Your task to perform on an android device: empty trash in google photos Image 0: 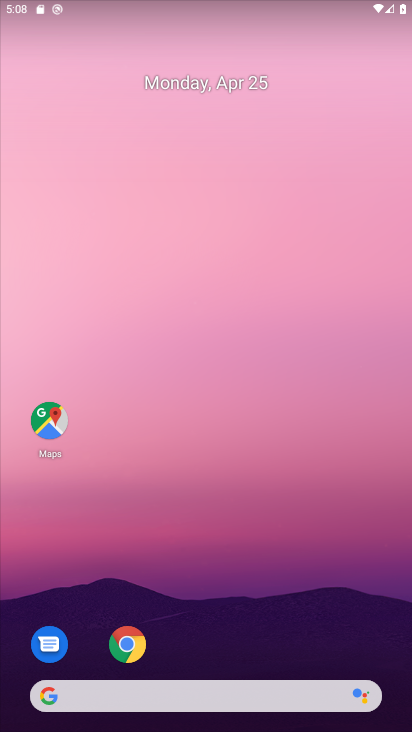
Step 0: drag from (244, 603) to (177, 50)
Your task to perform on an android device: empty trash in google photos Image 1: 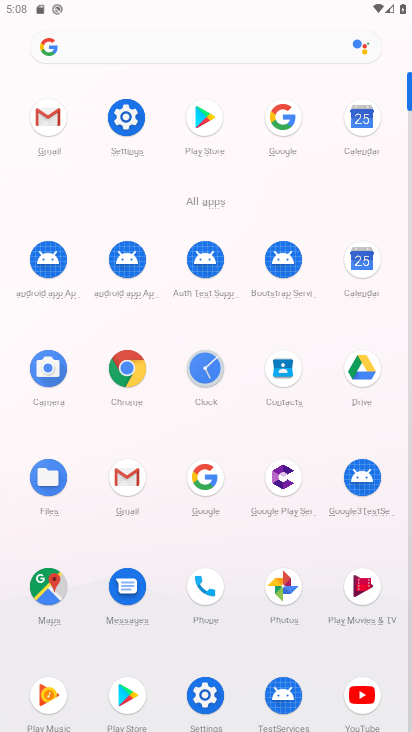
Step 1: click (282, 584)
Your task to perform on an android device: empty trash in google photos Image 2: 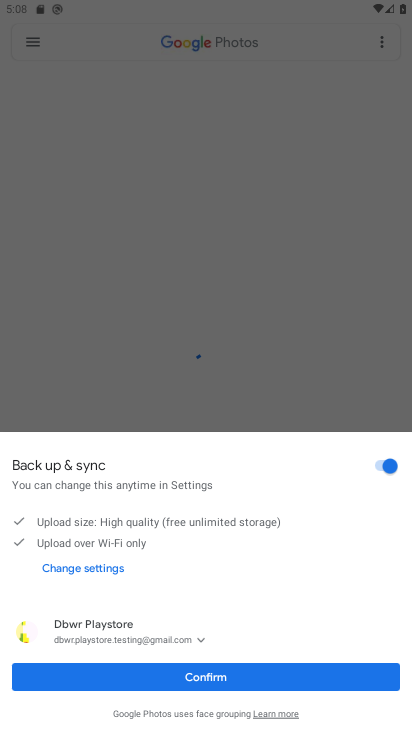
Step 2: click (236, 672)
Your task to perform on an android device: empty trash in google photos Image 3: 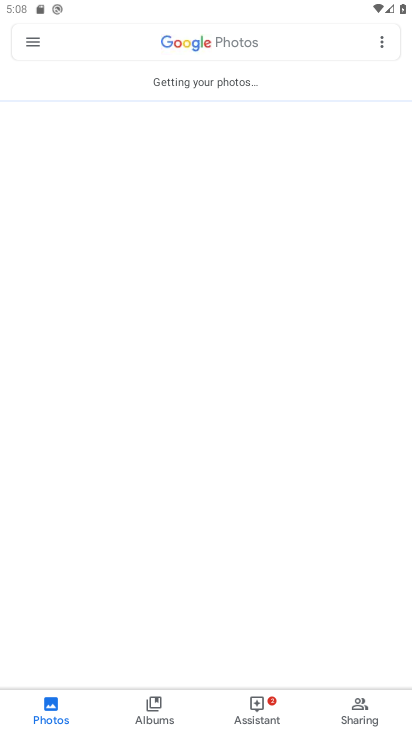
Step 3: click (33, 46)
Your task to perform on an android device: empty trash in google photos Image 4: 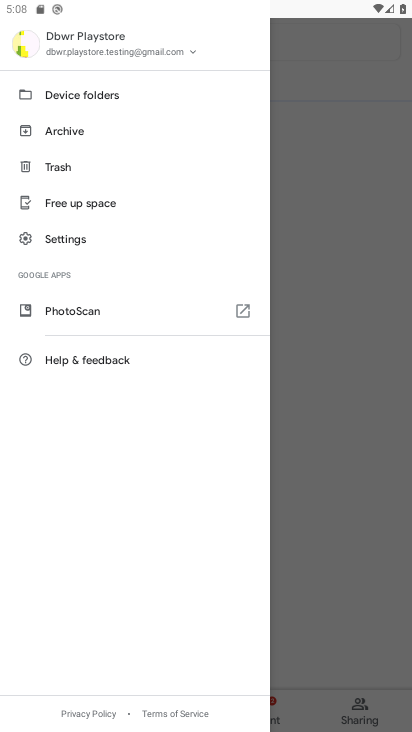
Step 4: click (54, 159)
Your task to perform on an android device: empty trash in google photos Image 5: 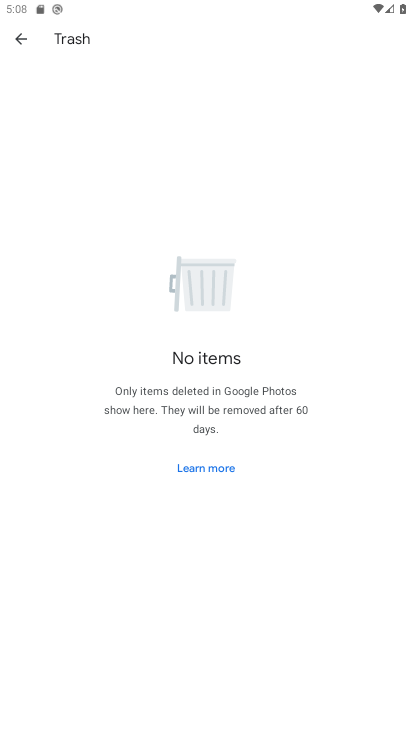
Step 5: task complete